Your task to perform on an android device: install app "Fetch Rewards" Image 0: 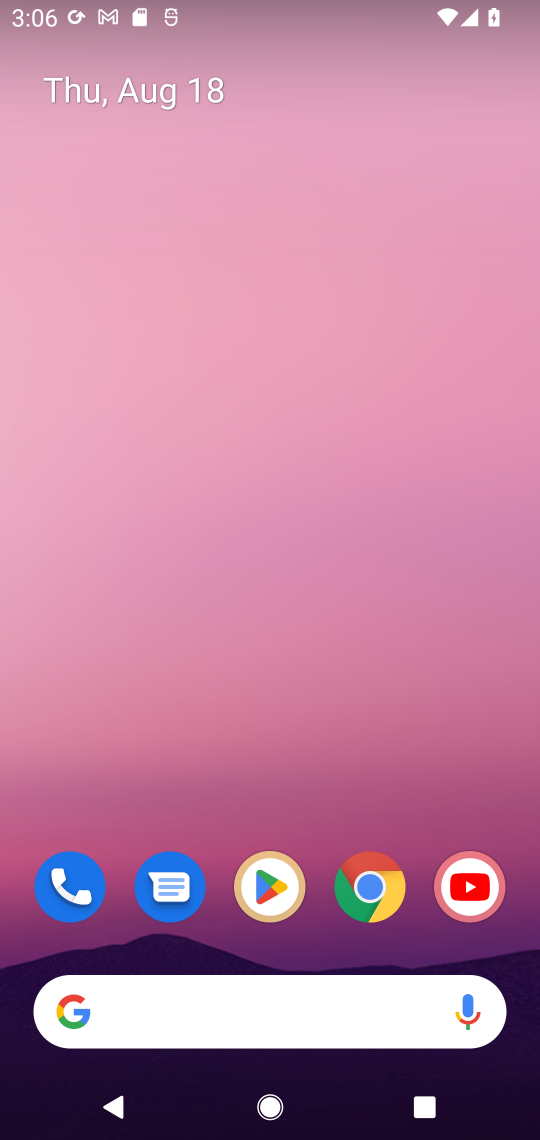
Step 0: press home button
Your task to perform on an android device: install app "Fetch Rewards" Image 1: 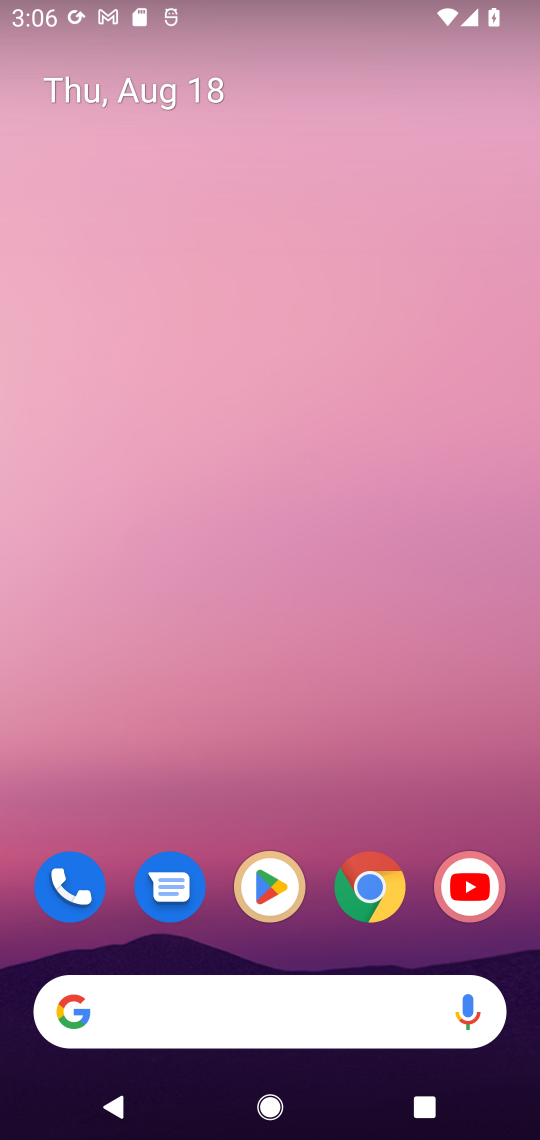
Step 1: press home button
Your task to perform on an android device: install app "Fetch Rewards" Image 2: 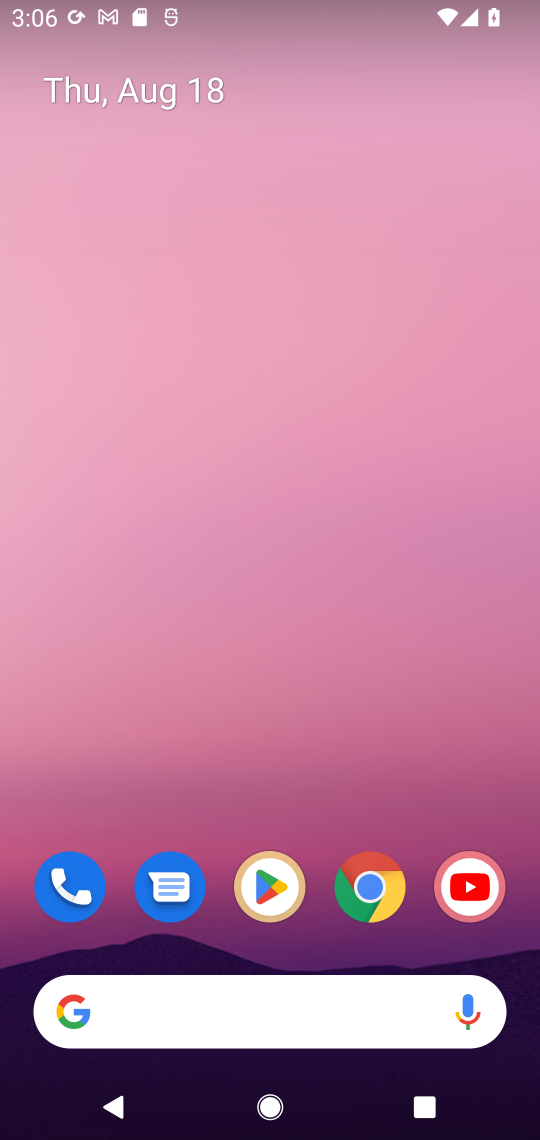
Step 2: click (278, 885)
Your task to perform on an android device: install app "Fetch Rewards" Image 3: 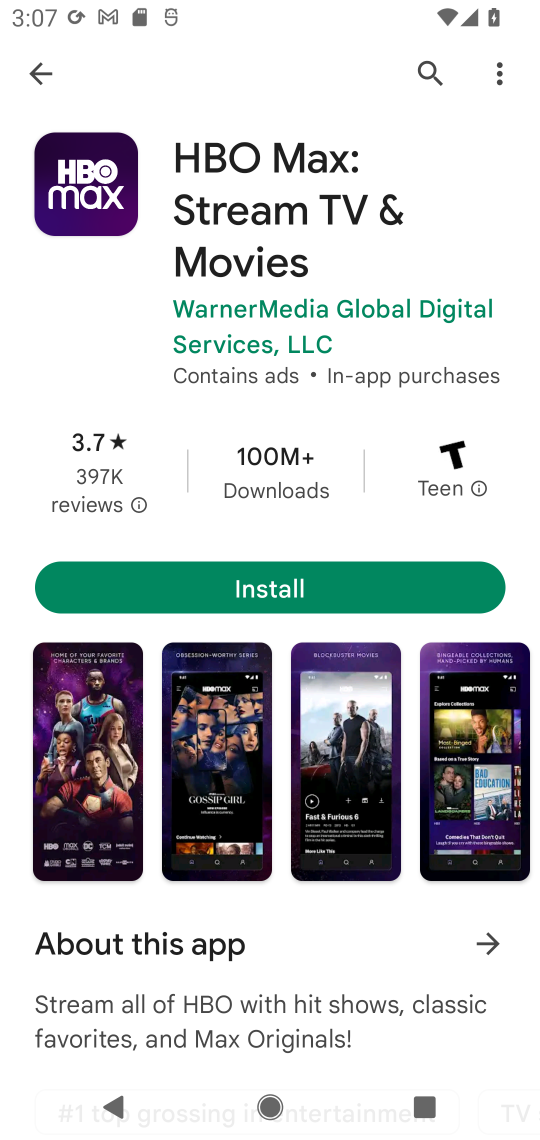
Step 3: click (427, 63)
Your task to perform on an android device: install app "Fetch Rewards" Image 4: 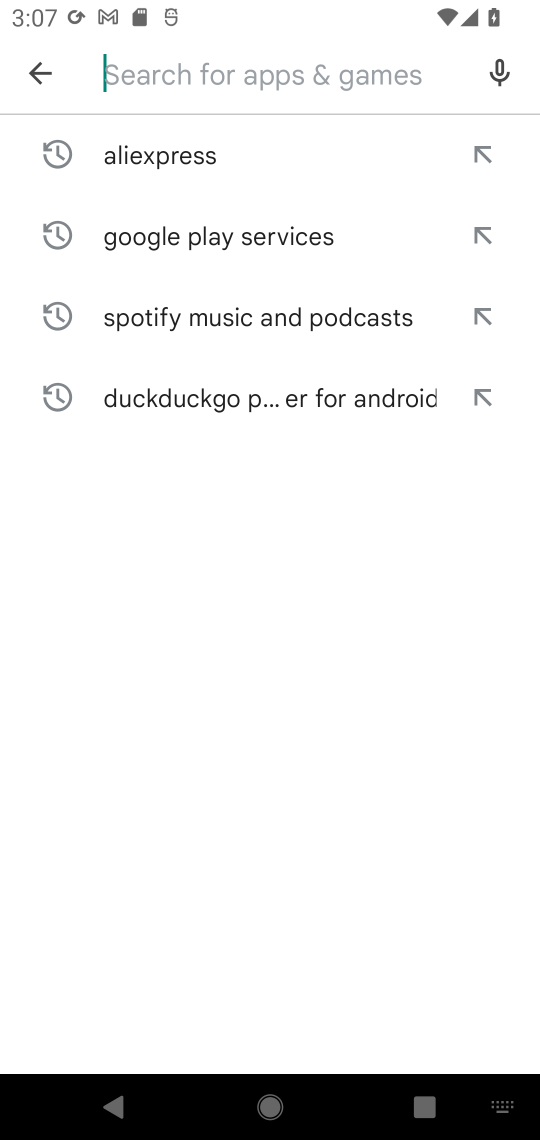
Step 4: type "Fetch Rewards"
Your task to perform on an android device: install app "Fetch Rewards" Image 5: 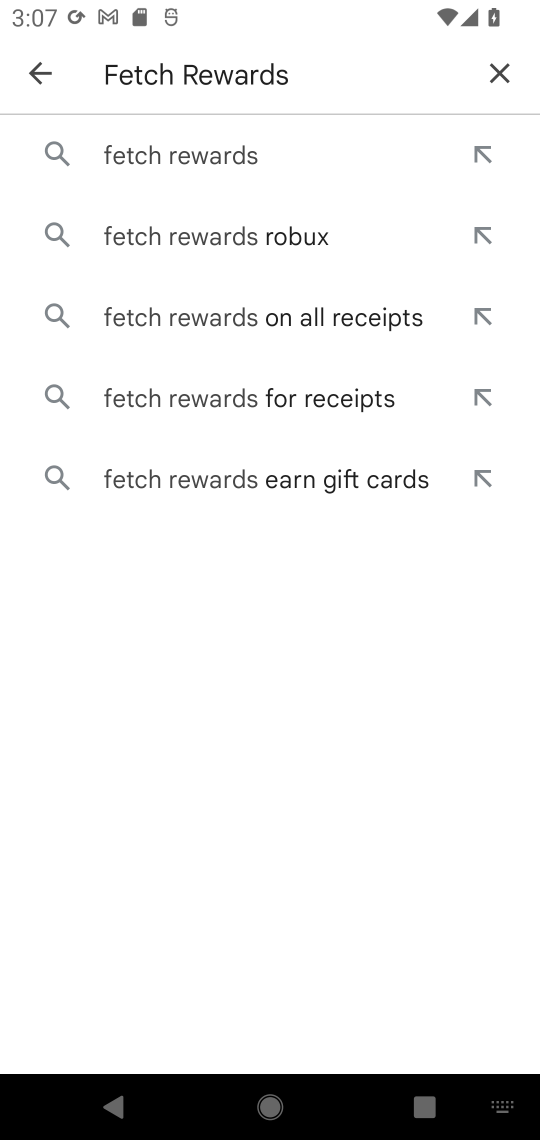
Step 5: click (238, 140)
Your task to perform on an android device: install app "Fetch Rewards" Image 6: 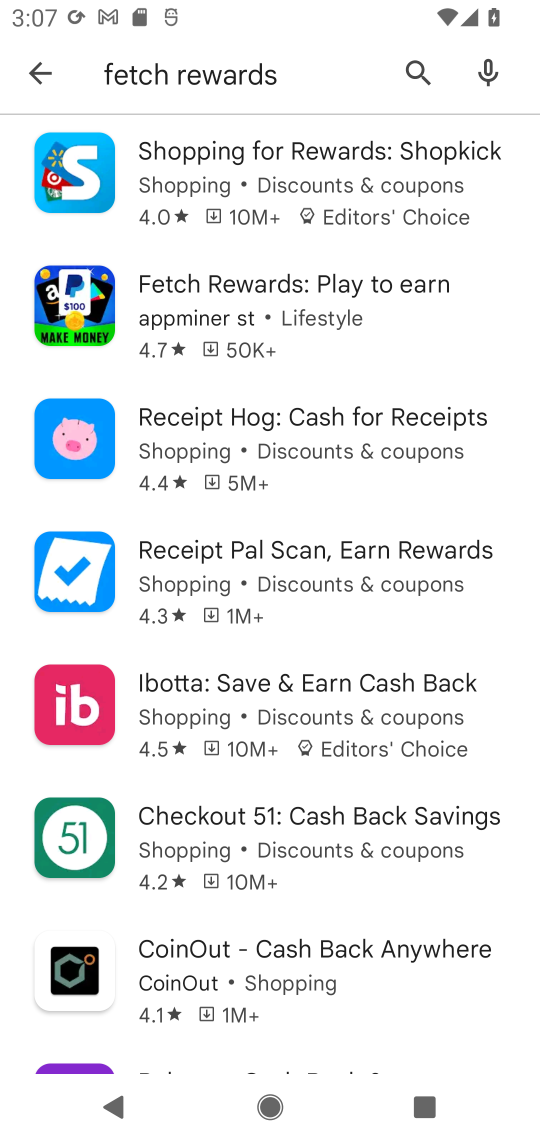
Step 6: click (291, 321)
Your task to perform on an android device: install app "Fetch Rewards" Image 7: 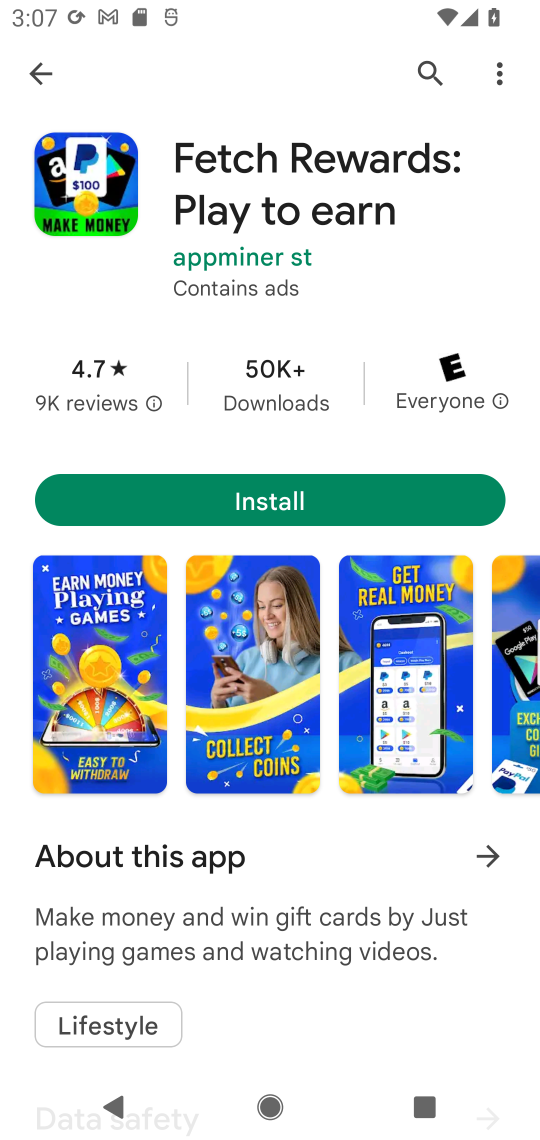
Step 7: click (281, 501)
Your task to perform on an android device: install app "Fetch Rewards" Image 8: 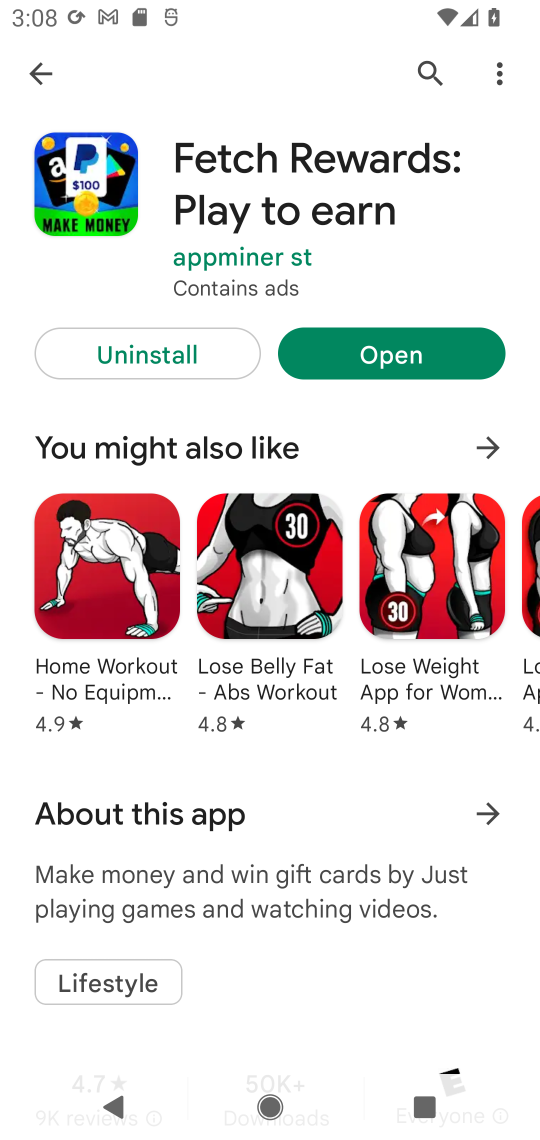
Step 8: click (396, 353)
Your task to perform on an android device: install app "Fetch Rewards" Image 9: 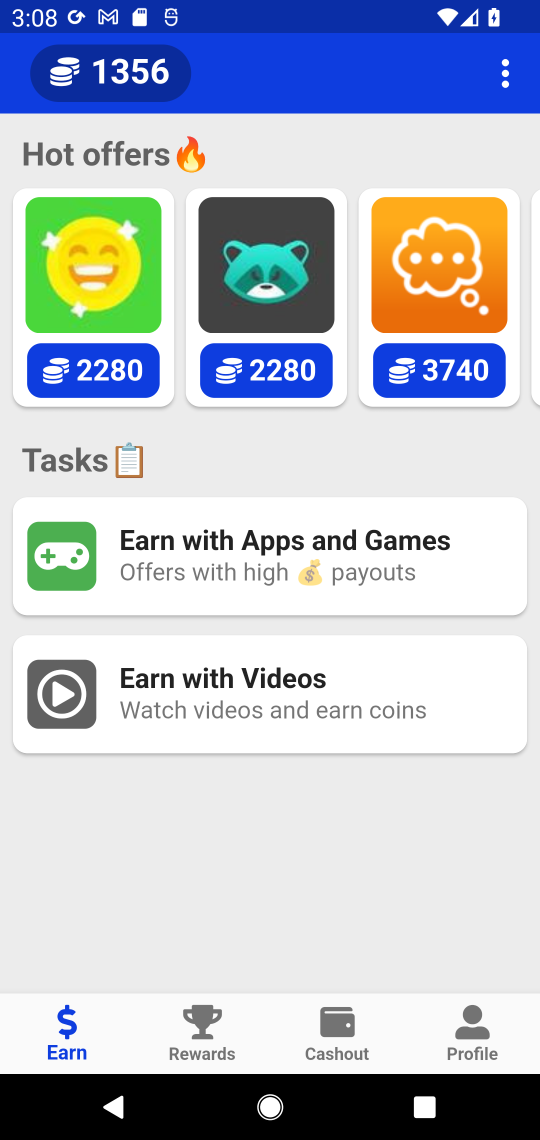
Step 9: task complete